Your task to perform on an android device: Show me productivity apps on the Play Store Image 0: 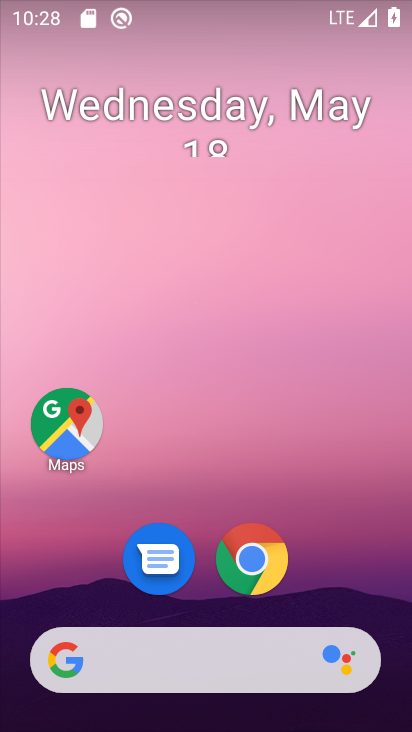
Step 0: drag from (205, 597) to (259, 91)
Your task to perform on an android device: Show me productivity apps on the Play Store Image 1: 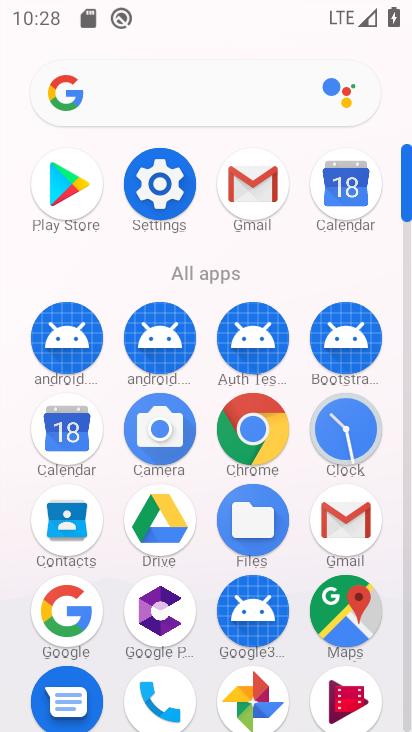
Step 1: click (149, 187)
Your task to perform on an android device: Show me productivity apps on the Play Store Image 2: 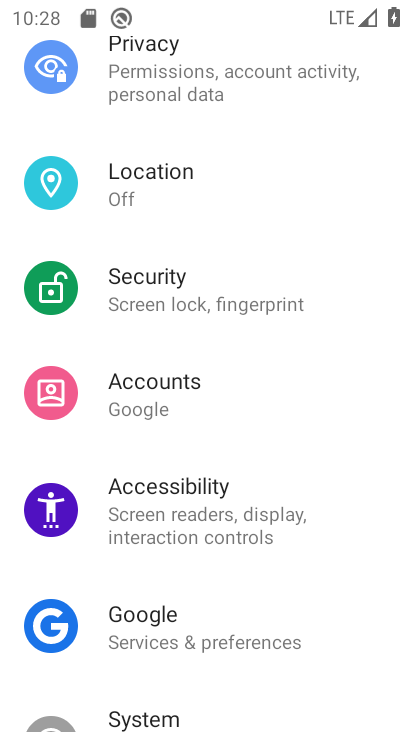
Step 2: press home button
Your task to perform on an android device: Show me productivity apps on the Play Store Image 3: 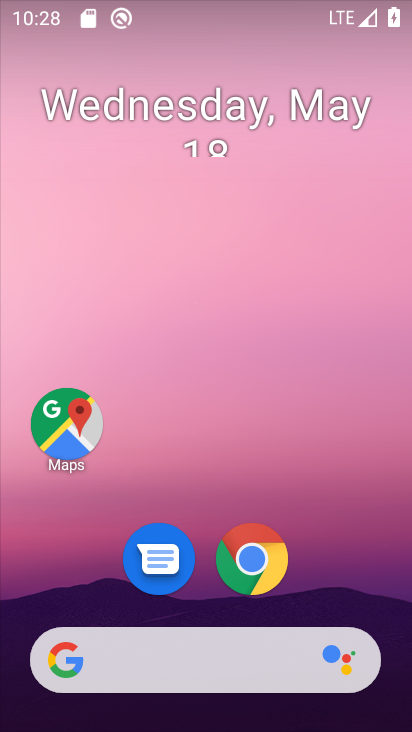
Step 3: drag from (229, 541) to (311, 1)
Your task to perform on an android device: Show me productivity apps on the Play Store Image 4: 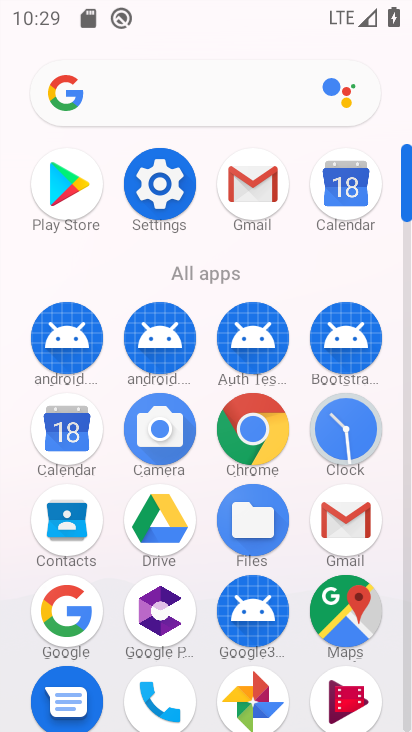
Step 4: drag from (220, 597) to (238, 11)
Your task to perform on an android device: Show me productivity apps on the Play Store Image 5: 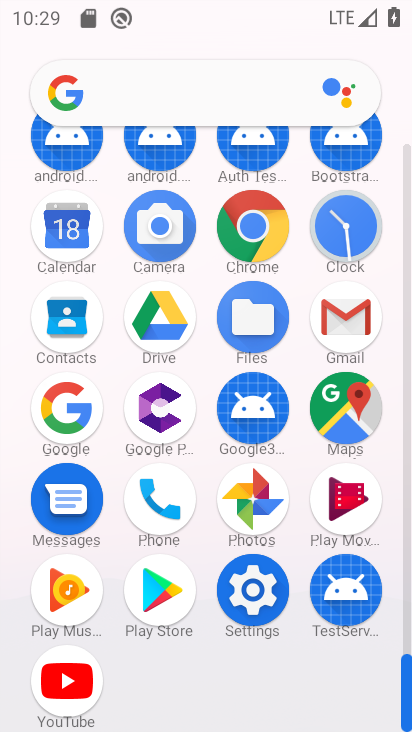
Step 5: click (153, 580)
Your task to perform on an android device: Show me productivity apps on the Play Store Image 6: 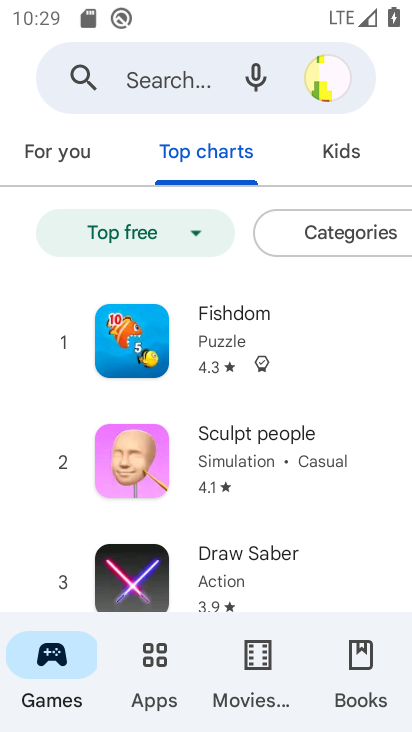
Step 6: click (171, 669)
Your task to perform on an android device: Show me productivity apps on the Play Store Image 7: 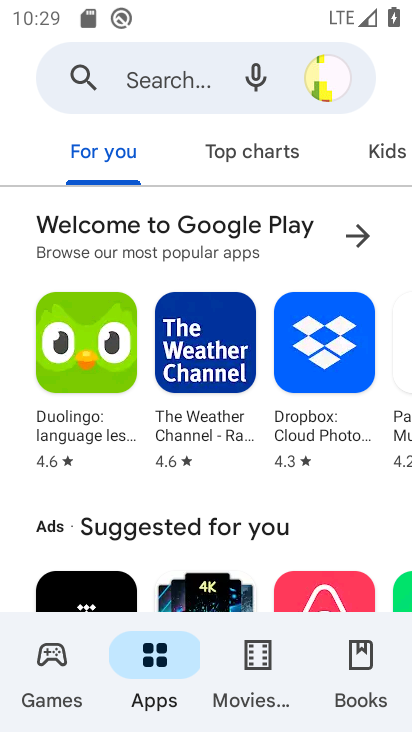
Step 7: drag from (285, 160) to (52, 143)
Your task to perform on an android device: Show me productivity apps on the Play Store Image 8: 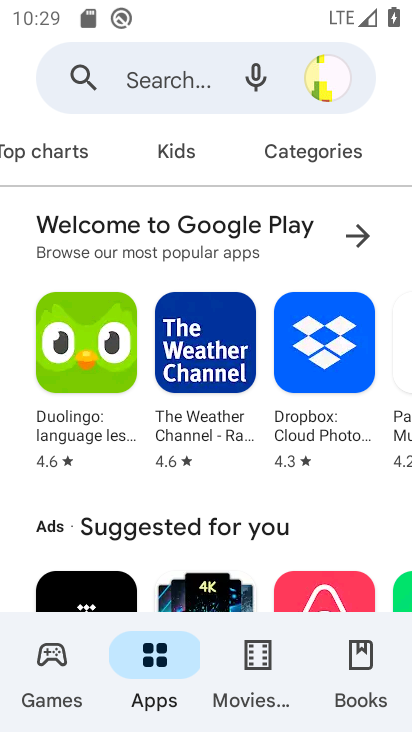
Step 8: click (307, 160)
Your task to perform on an android device: Show me productivity apps on the Play Store Image 9: 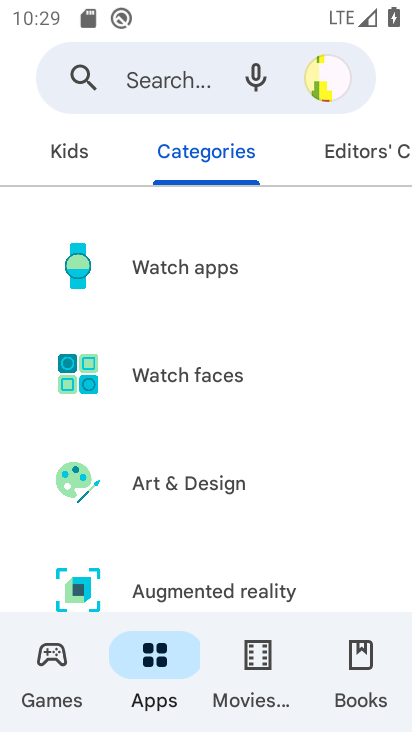
Step 9: drag from (185, 550) to (268, 52)
Your task to perform on an android device: Show me productivity apps on the Play Store Image 10: 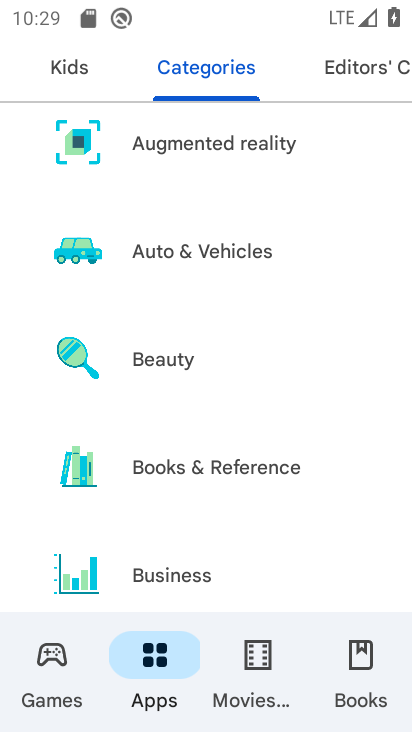
Step 10: drag from (255, 522) to (286, 121)
Your task to perform on an android device: Show me productivity apps on the Play Store Image 11: 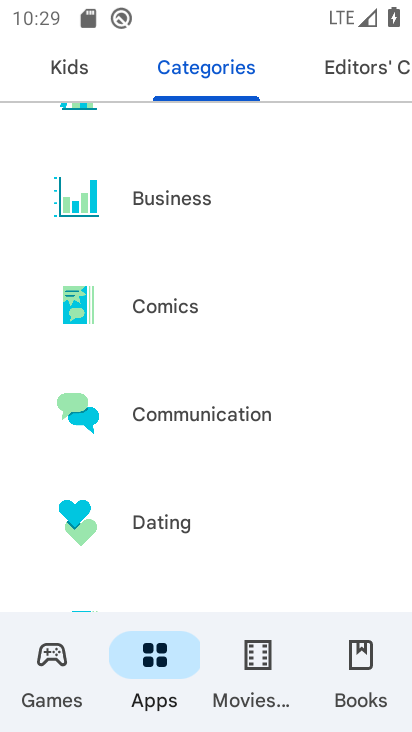
Step 11: drag from (231, 506) to (274, 172)
Your task to perform on an android device: Show me productivity apps on the Play Store Image 12: 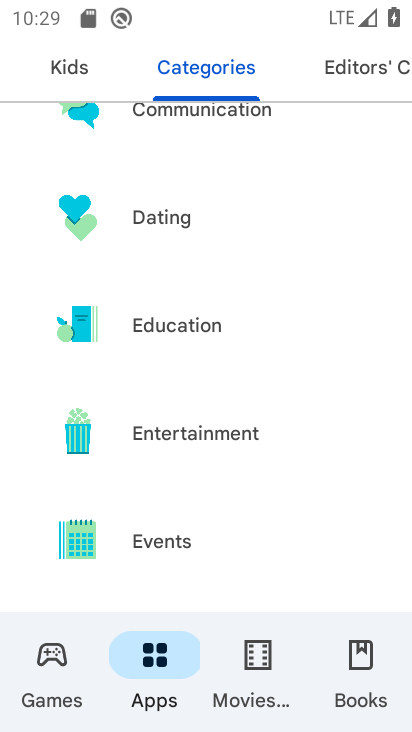
Step 12: drag from (215, 505) to (277, 142)
Your task to perform on an android device: Show me productivity apps on the Play Store Image 13: 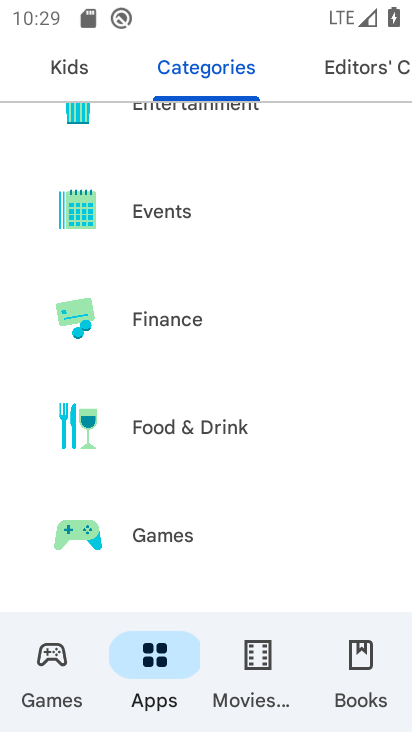
Step 13: drag from (211, 473) to (245, 99)
Your task to perform on an android device: Show me productivity apps on the Play Store Image 14: 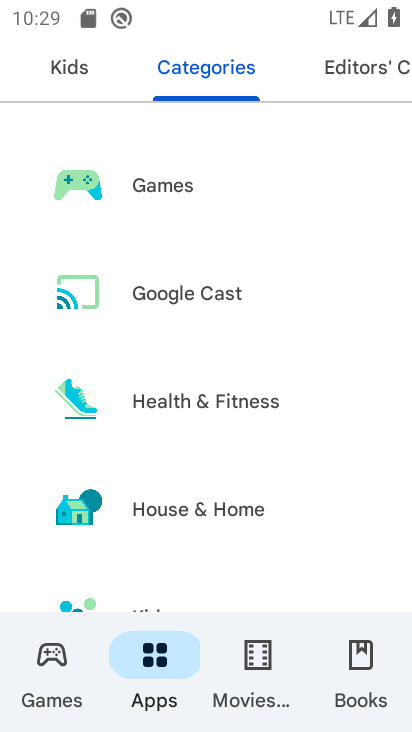
Step 14: drag from (205, 500) to (236, 150)
Your task to perform on an android device: Show me productivity apps on the Play Store Image 15: 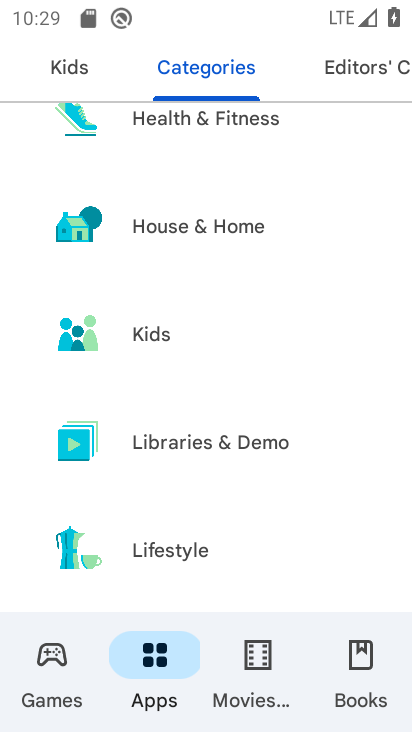
Step 15: drag from (227, 513) to (272, 144)
Your task to perform on an android device: Show me productivity apps on the Play Store Image 16: 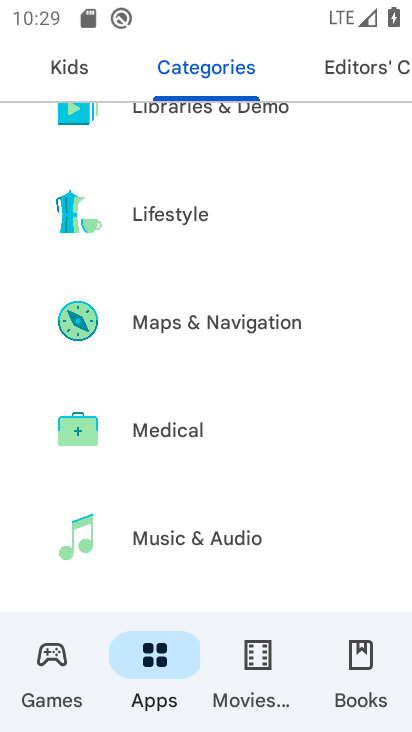
Step 16: drag from (204, 504) to (264, 121)
Your task to perform on an android device: Show me productivity apps on the Play Store Image 17: 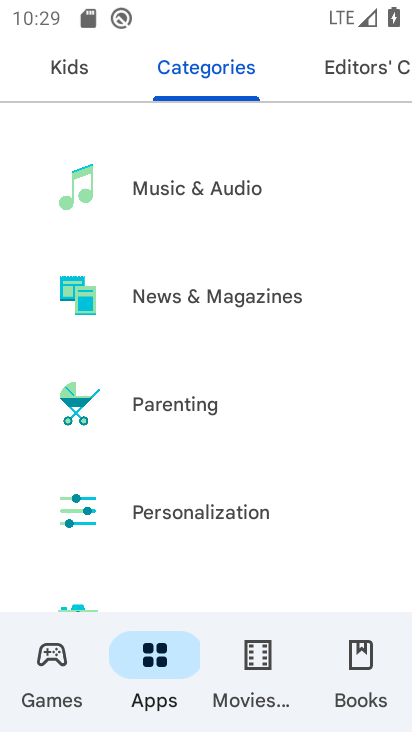
Step 17: drag from (236, 537) to (267, 185)
Your task to perform on an android device: Show me productivity apps on the Play Store Image 18: 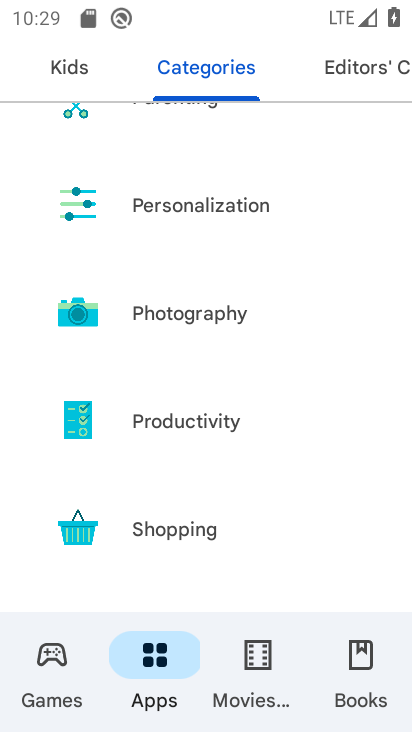
Step 18: click (220, 438)
Your task to perform on an android device: Show me productivity apps on the Play Store Image 19: 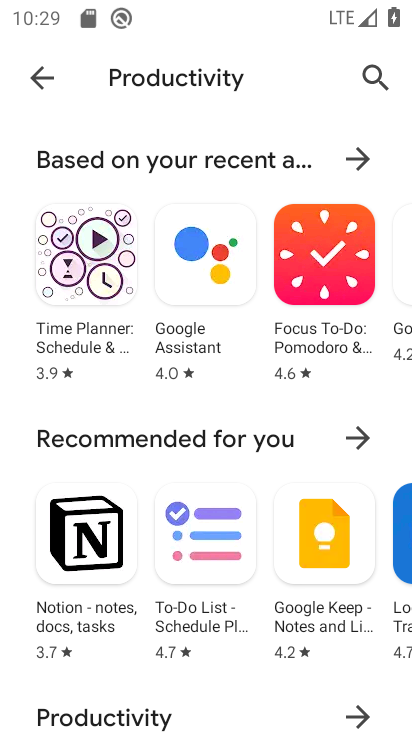
Step 19: task complete